Your task to perform on an android device: Search for sushi restaurants on Maps Image 0: 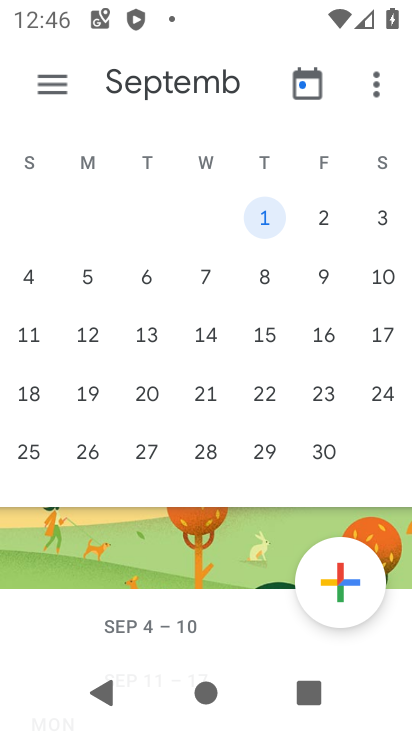
Step 0: press home button
Your task to perform on an android device: Search for sushi restaurants on Maps Image 1: 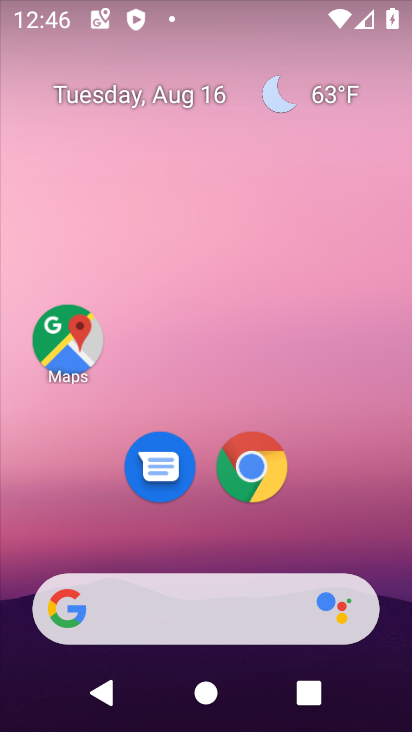
Step 1: drag from (345, 540) to (402, 114)
Your task to perform on an android device: Search for sushi restaurants on Maps Image 2: 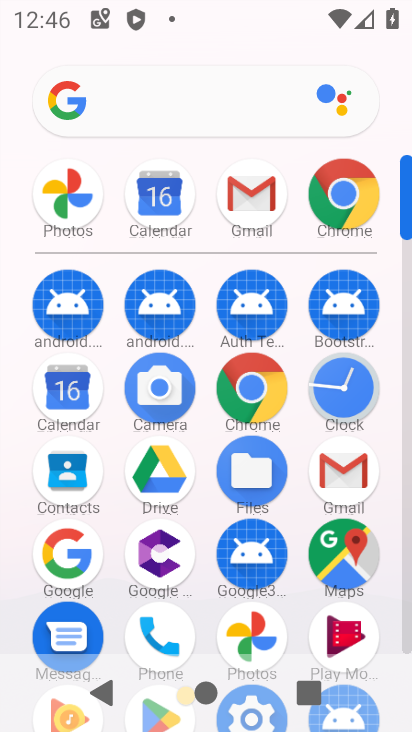
Step 2: click (346, 563)
Your task to perform on an android device: Search for sushi restaurants on Maps Image 3: 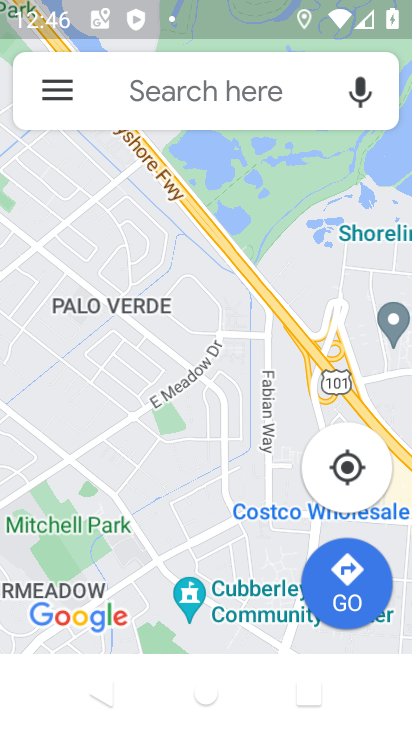
Step 3: click (198, 79)
Your task to perform on an android device: Search for sushi restaurants on Maps Image 4: 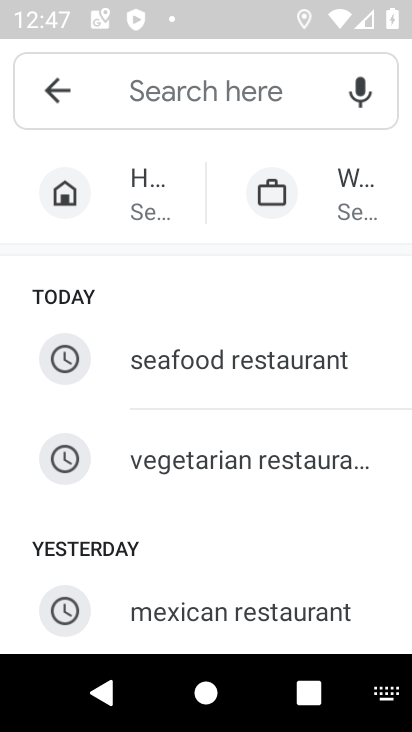
Step 4: type "sushi restaurants"
Your task to perform on an android device: Search for sushi restaurants on Maps Image 5: 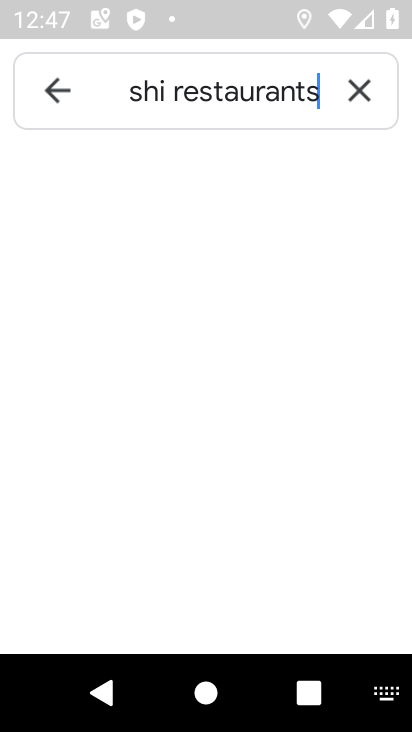
Step 5: press enter
Your task to perform on an android device: Search for sushi restaurants on Maps Image 6: 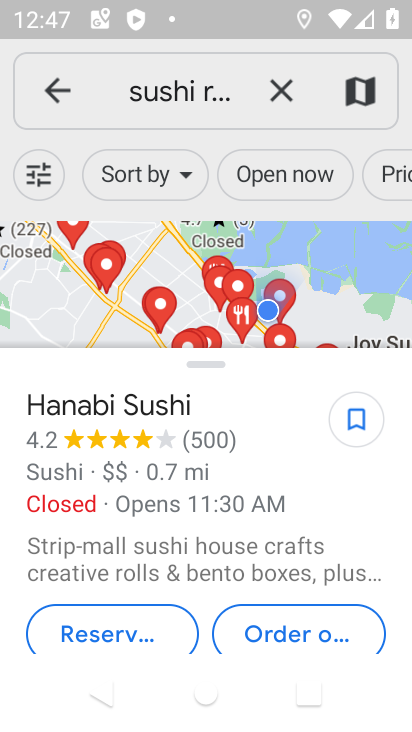
Step 6: task complete